Your task to perform on an android device: Clear the shopping cart on amazon.com. Add duracell triple a to the cart on amazon.com Image 0: 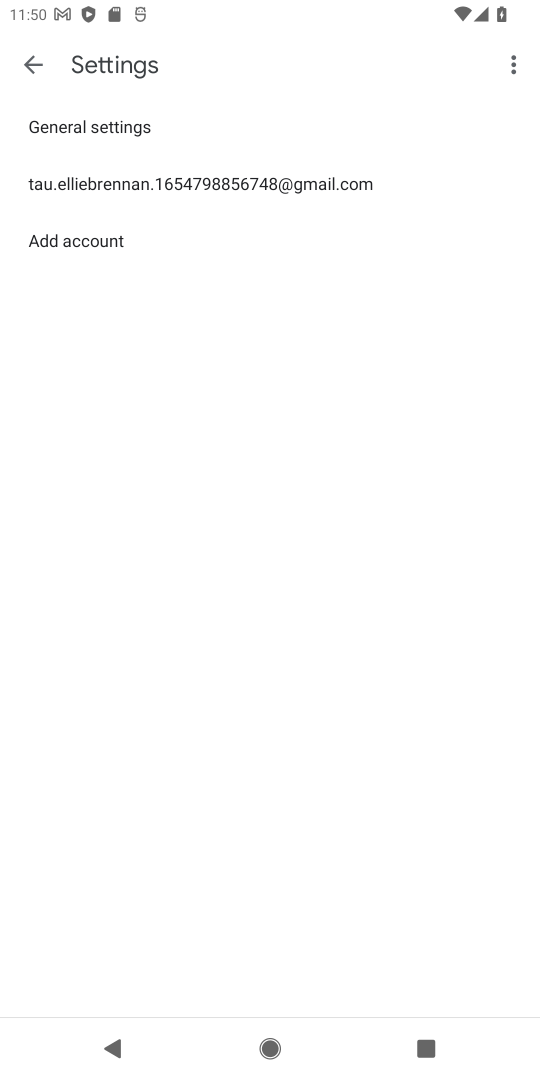
Step 0: press home button
Your task to perform on an android device: Clear the shopping cart on amazon.com. Add duracell triple a to the cart on amazon.com Image 1: 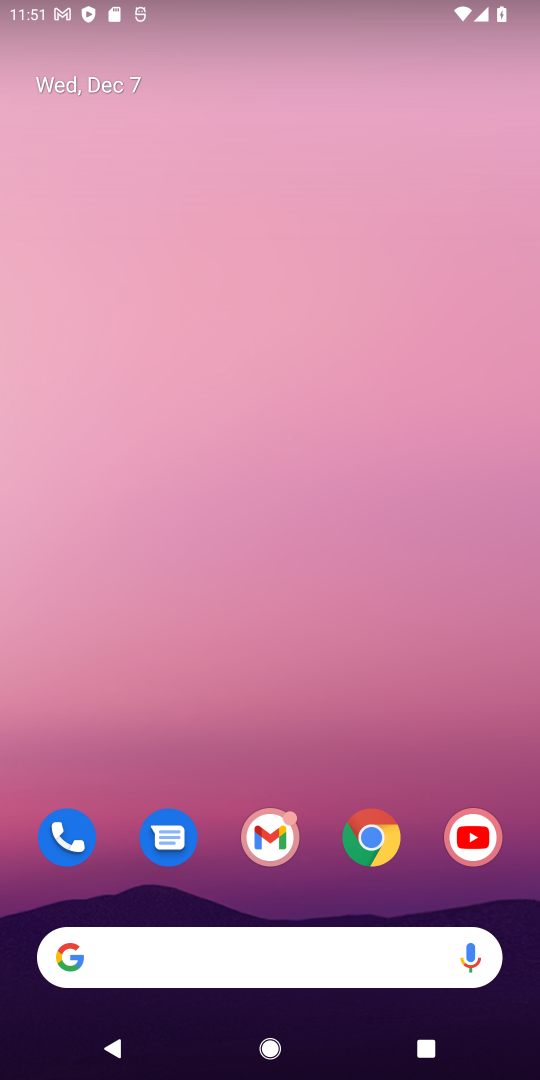
Step 1: click (367, 841)
Your task to perform on an android device: Clear the shopping cart on amazon.com. Add duracell triple a to the cart on amazon.com Image 2: 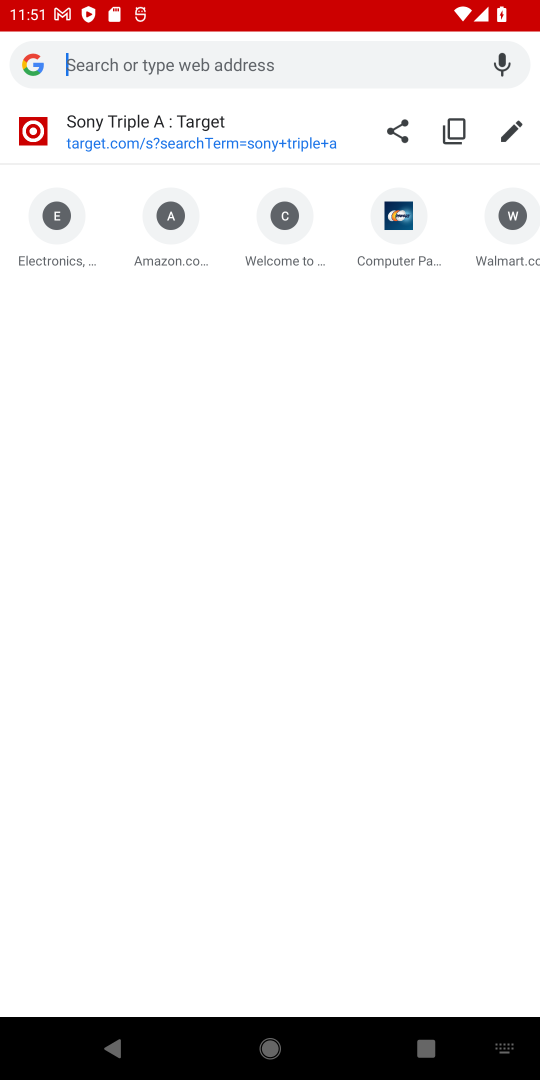
Step 2: click (171, 63)
Your task to perform on an android device: Clear the shopping cart on amazon.com. Add duracell triple a to the cart on amazon.com Image 3: 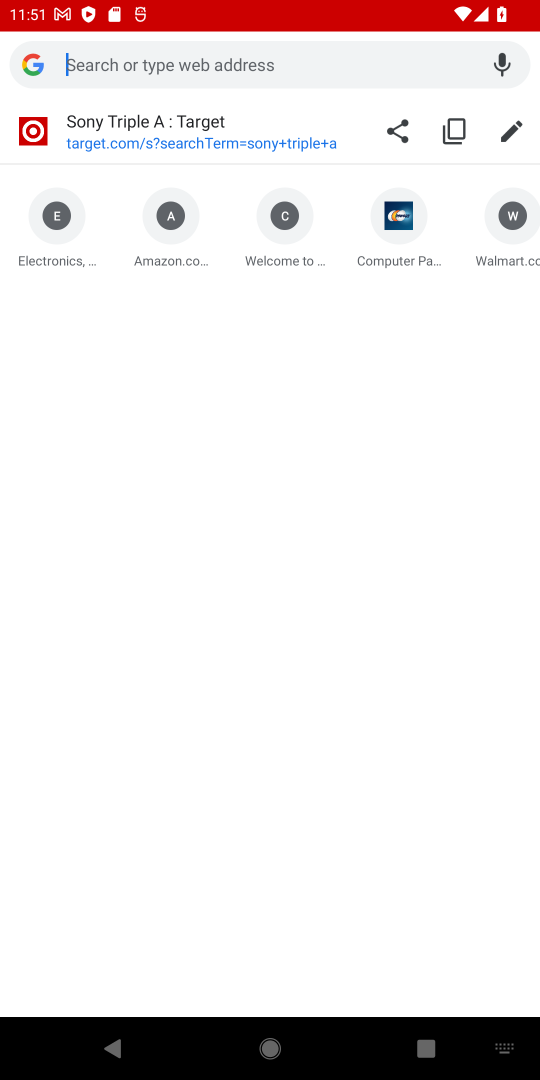
Step 3: type "amazon.com"
Your task to perform on an android device: Clear the shopping cart on amazon.com. Add duracell triple a to the cart on amazon.com Image 4: 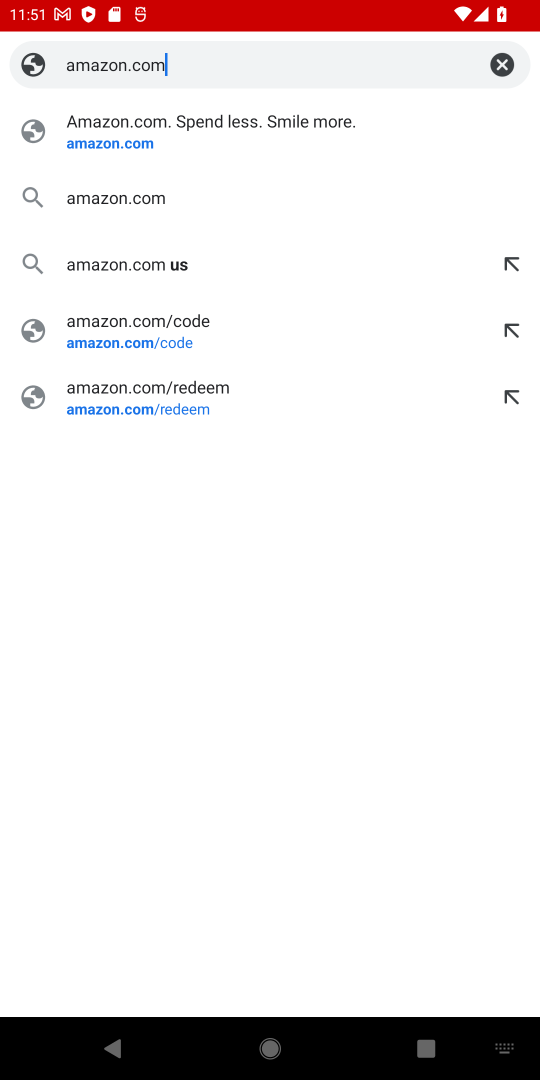
Step 4: press enter
Your task to perform on an android device: Clear the shopping cart on amazon.com. Add duracell triple a to the cart on amazon.com Image 5: 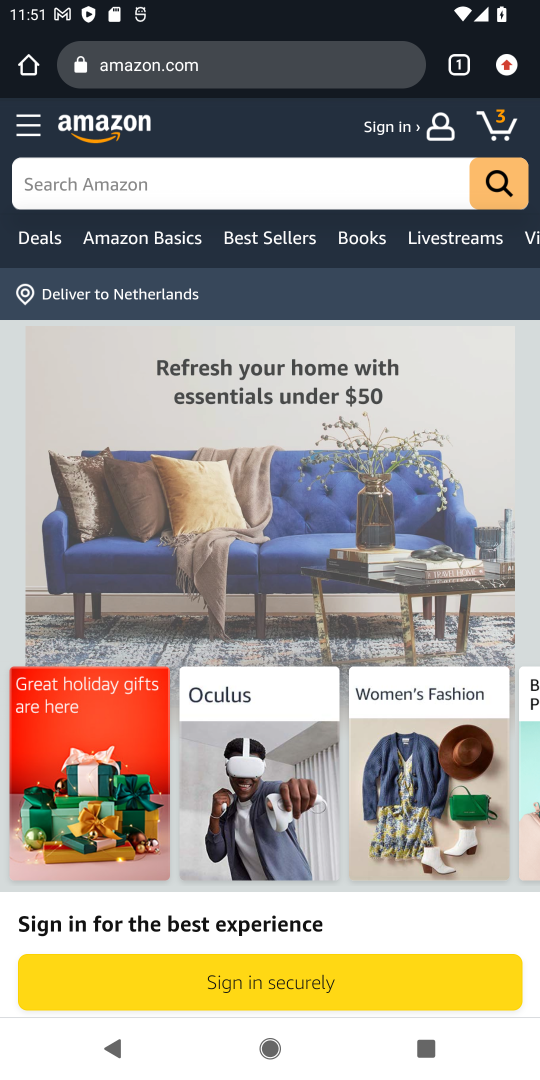
Step 5: click (504, 126)
Your task to perform on an android device: Clear the shopping cart on amazon.com. Add duracell triple a to the cart on amazon.com Image 6: 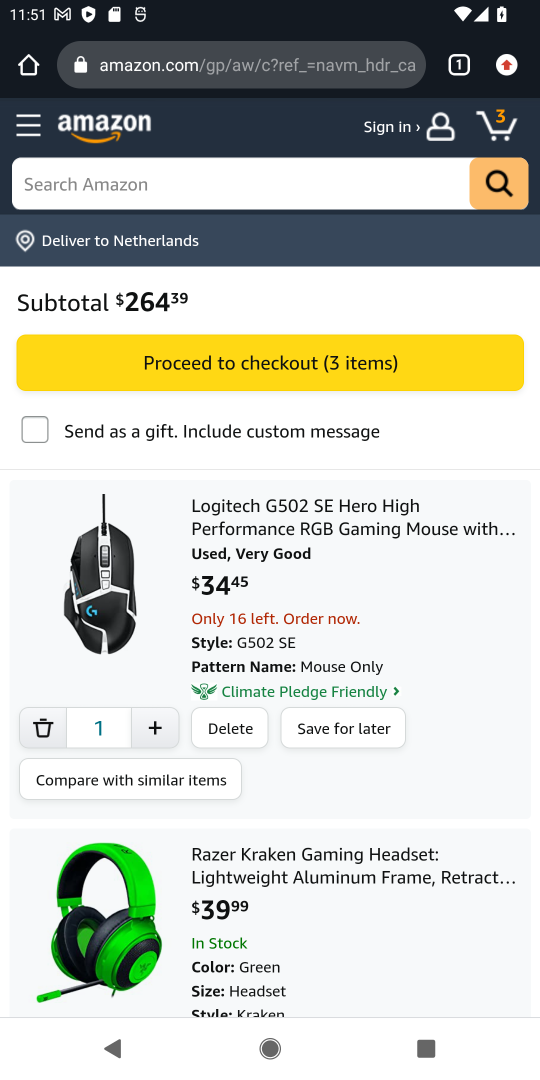
Step 6: click (234, 729)
Your task to perform on an android device: Clear the shopping cart on amazon.com. Add duracell triple a to the cart on amazon.com Image 7: 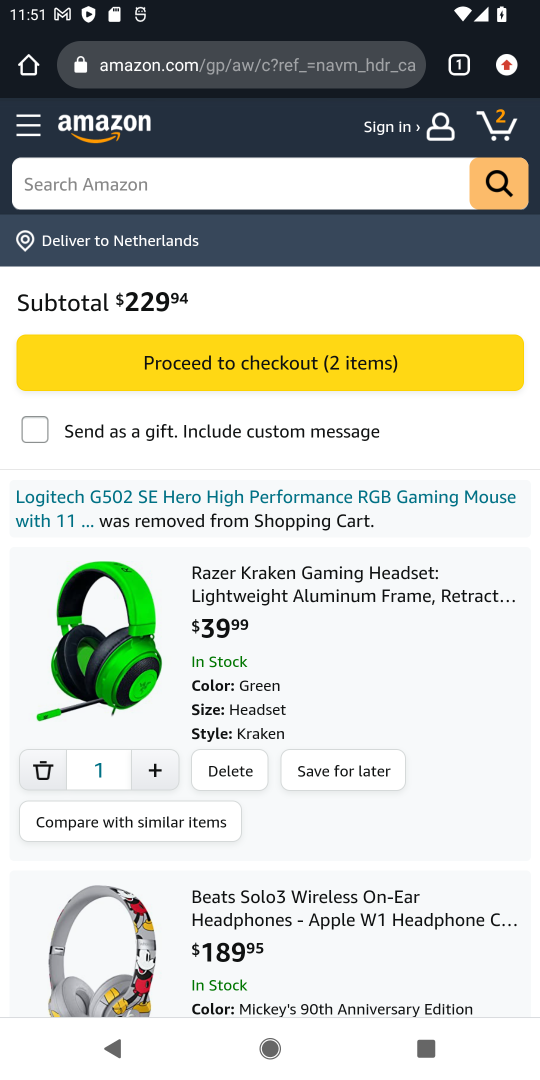
Step 7: click (229, 774)
Your task to perform on an android device: Clear the shopping cart on amazon.com. Add duracell triple a to the cart on amazon.com Image 8: 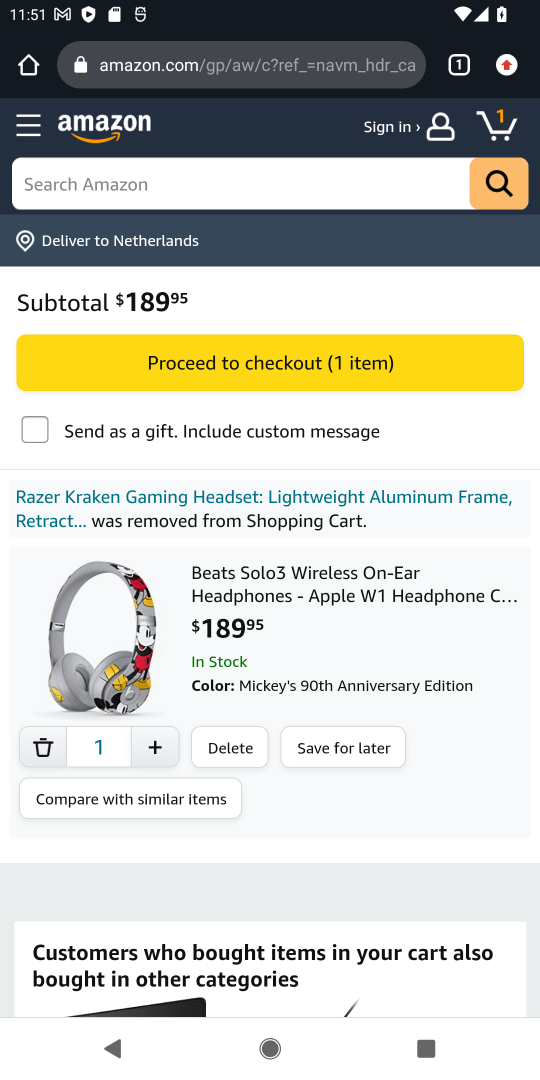
Step 8: click (234, 754)
Your task to perform on an android device: Clear the shopping cart on amazon.com. Add duracell triple a to the cart on amazon.com Image 9: 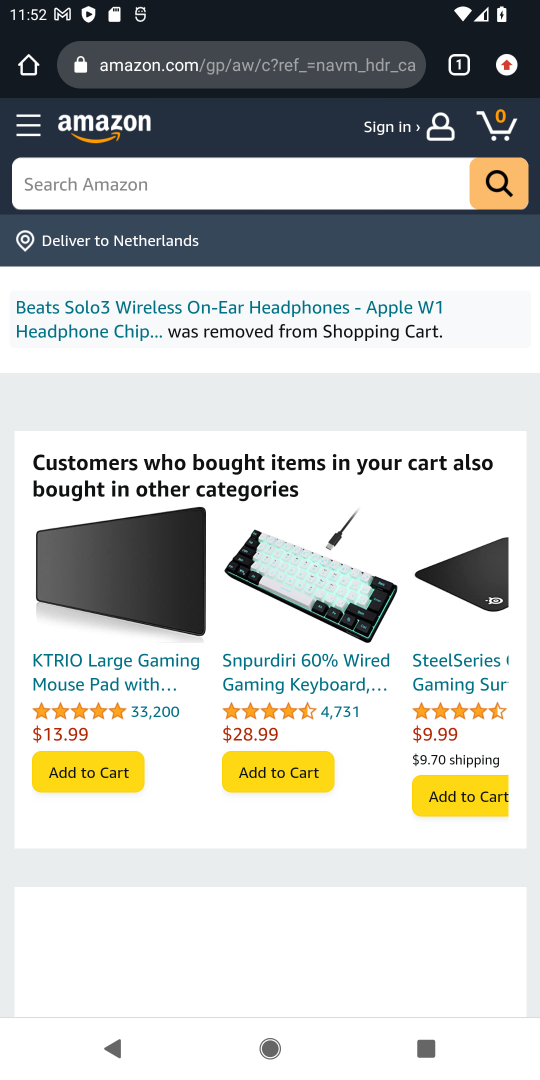
Step 9: click (219, 178)
Your task to perform on an android device: Clear the shopping cart on amazon.com. Add duracell triple a to the cart on amazon.com Image 10: 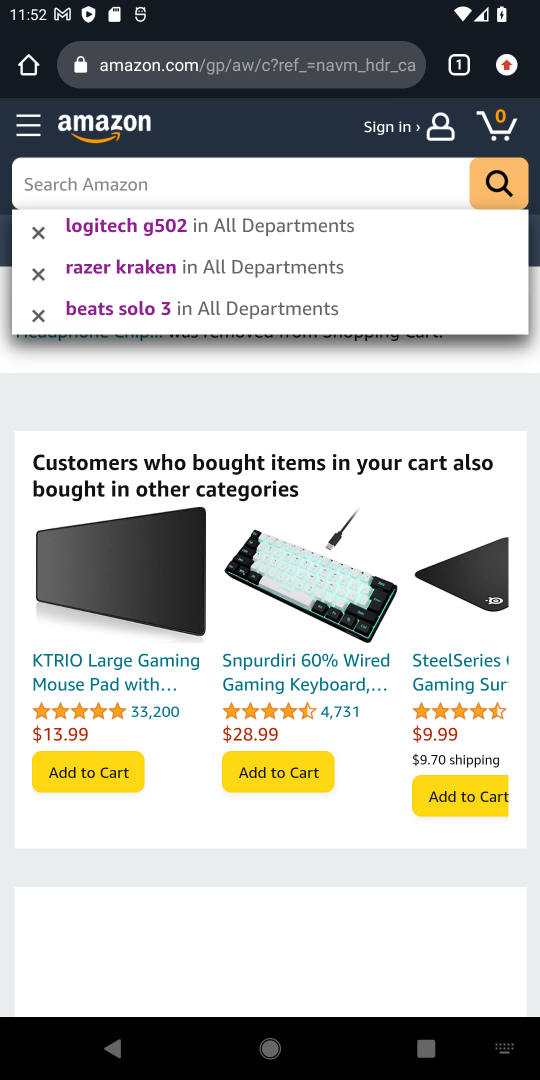
Step 10: type "duracell triple a"
Your task to perform on an android device: Clear the shopping cart on amazon.com. Add duracell triple a to the cart on amazon.com Image 11: 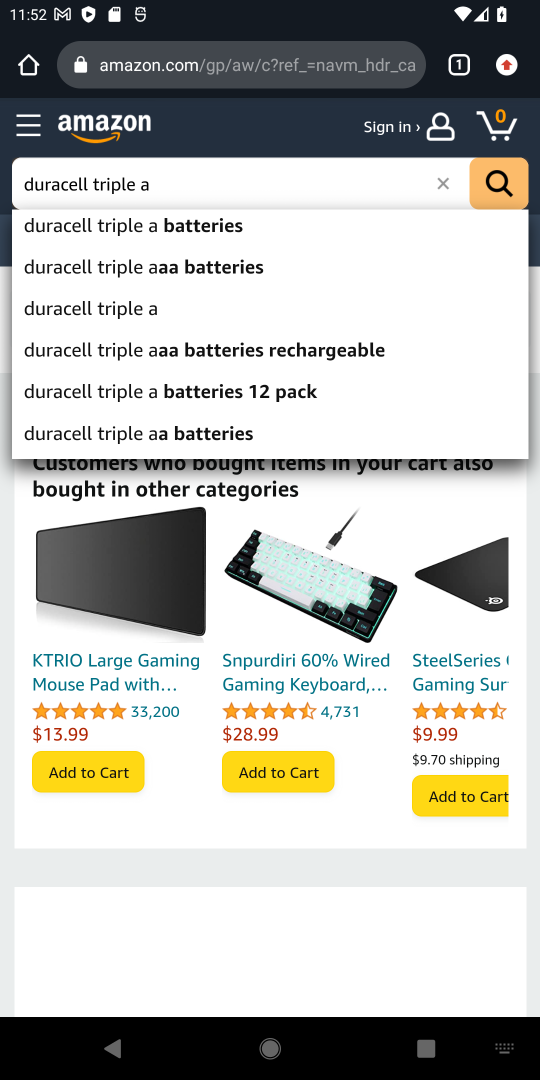
Step 11: press enter
Your task to perform on an android device: Clear the shopping cart on amazon.com. Add duracell triple a to the cart on amazon.com Image 12: 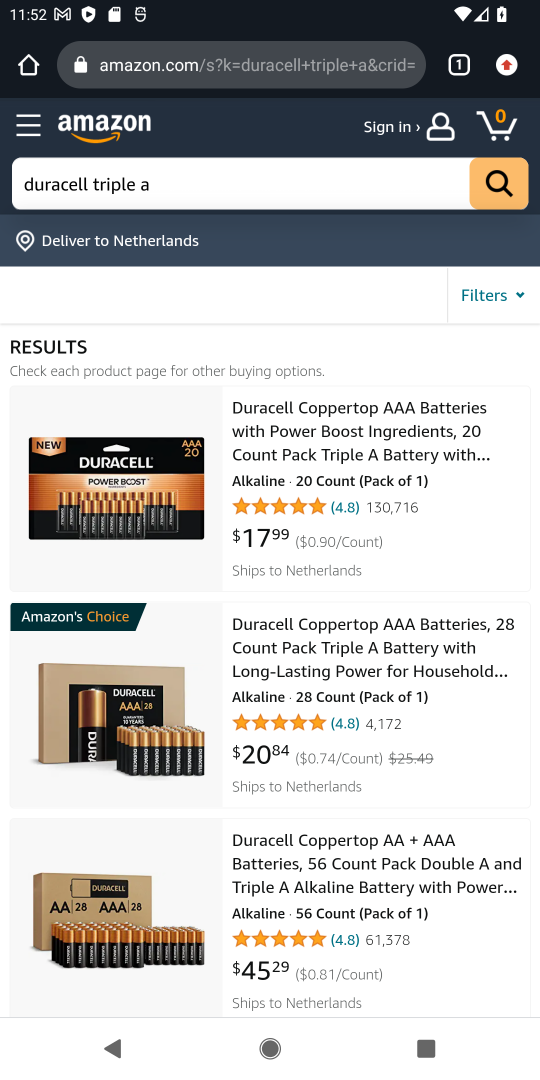
Step 12: click (313, 492)
Your task to perform on an android device: Clear the shopping cart on amazon.com. Add duracell triple a to the cart on amazon.com Image 13: 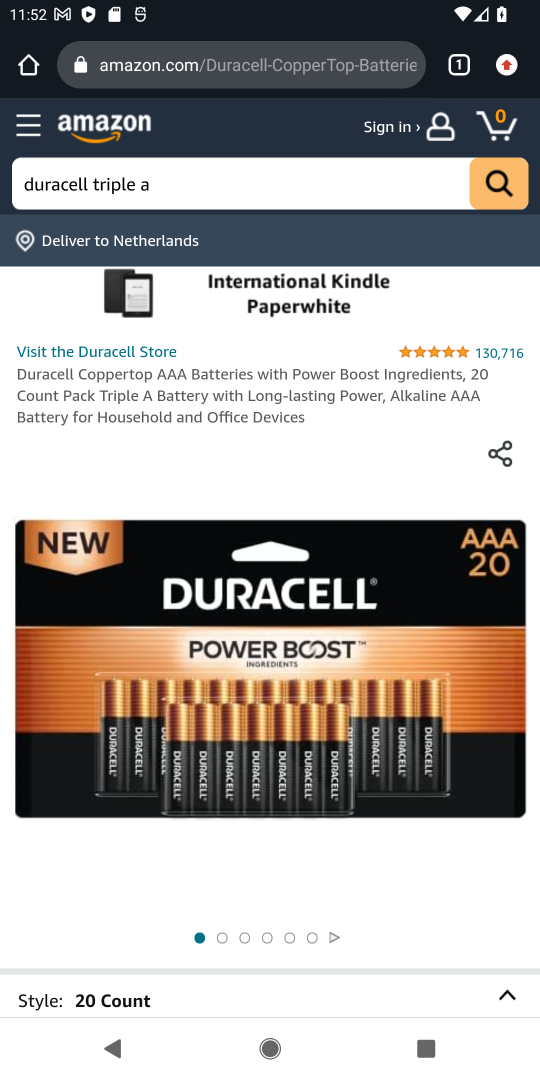
Step 13: drag from (289, 878) to (346, 396)
Your task to perform on an android device: Clear the shopping cart on amazon.com. Add duracell triple a to the cart on amazon.com Image 14: 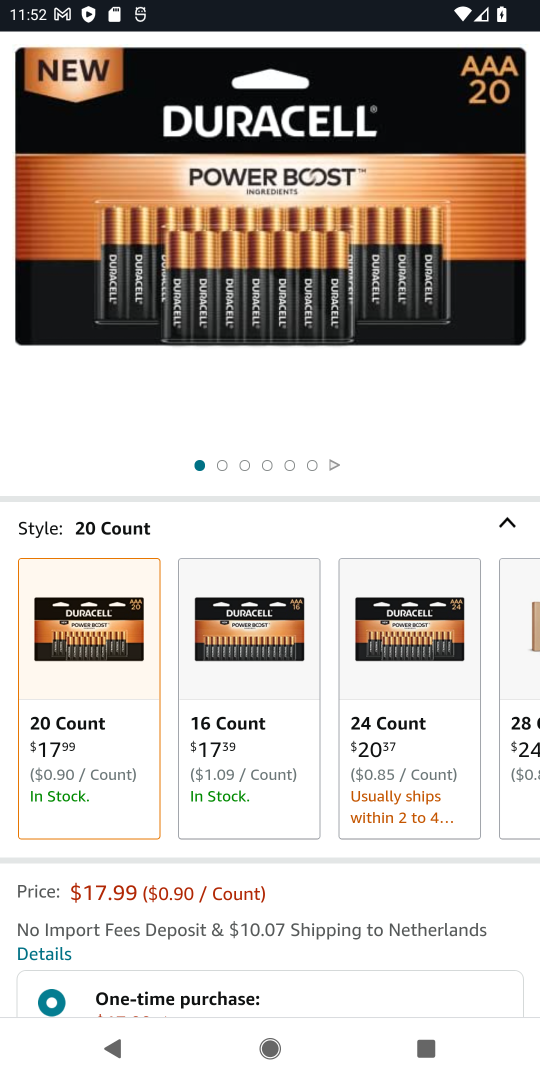
Step 14: drag from (284, 928) to (347, 374)
Your task to perform on an android device: Clear the shopping cart on amazon.com. Add duracell triple a to the cart on amazon.com Image 15: 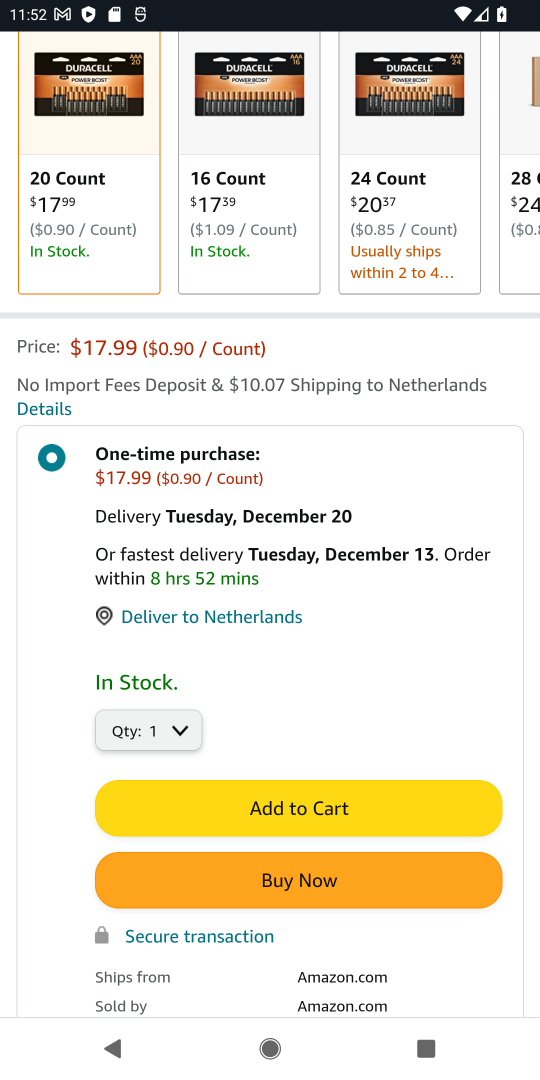
Step 15: click (320, 815)
Your task to perform on an android device: Clear the shopping cart on amazon.com. Add duracell triple a to the cart on amazon.com Image 16: 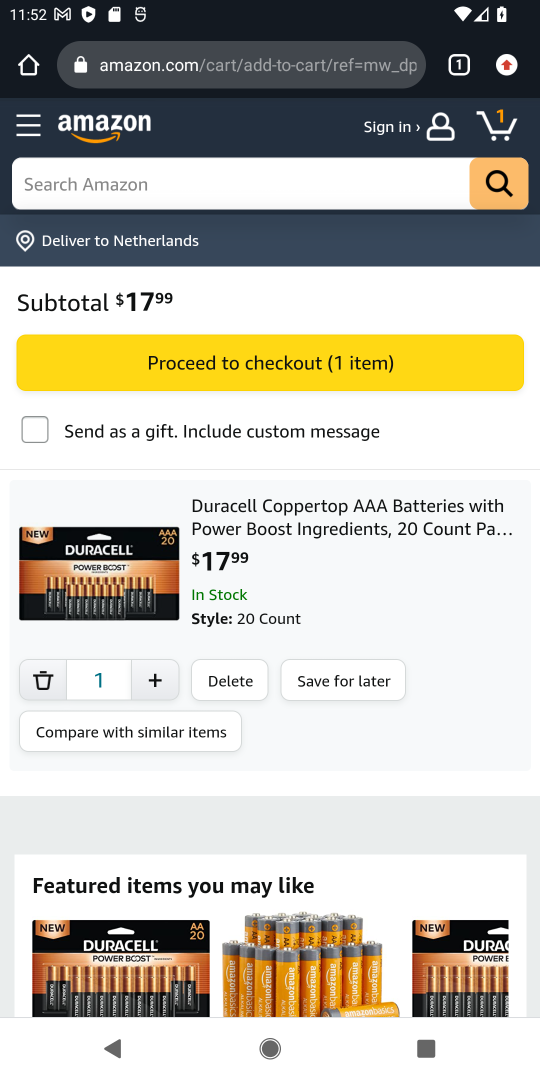
Step 16: task complete